Your task to perform on an android device: turn off picture-in-picture Image 0: 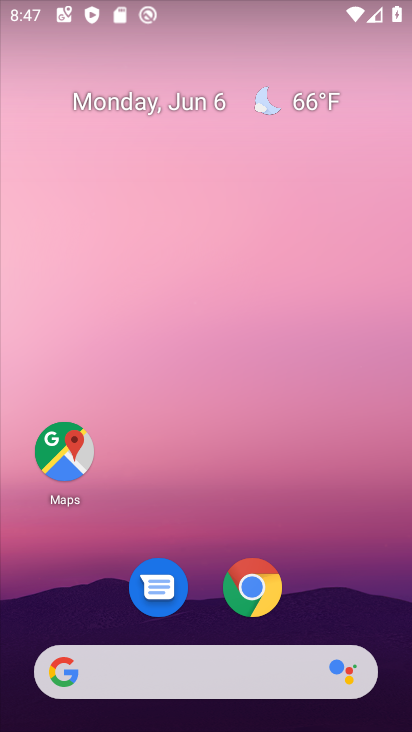
Step 0: click (260, 594)
Your task to perform on an android device: turn off picture-in-picture Image 1: 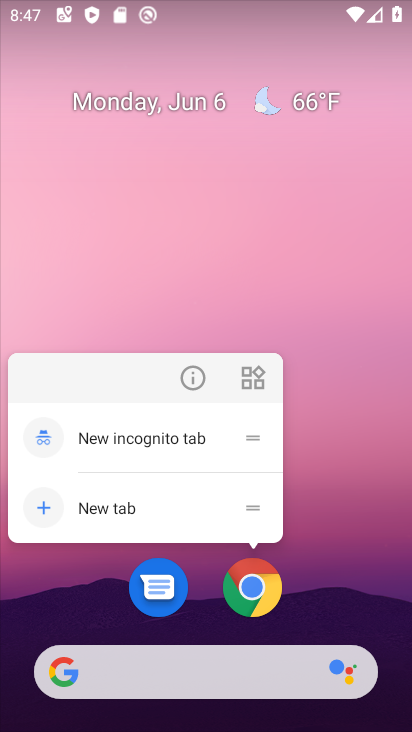
Step 1: click (195, 373)
Your task to perform on an android device: turn off picture-in-picture Image 2: 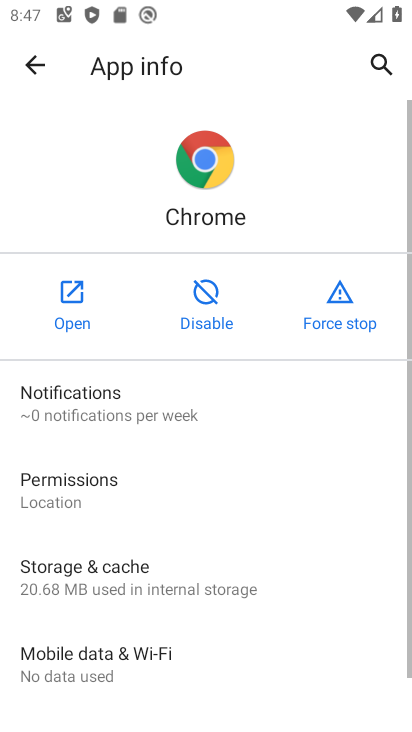
Step 2: drag from (213, 610) to (197, 13)
Your task to perform on an android device: turn off picture-in-picture Image 3: 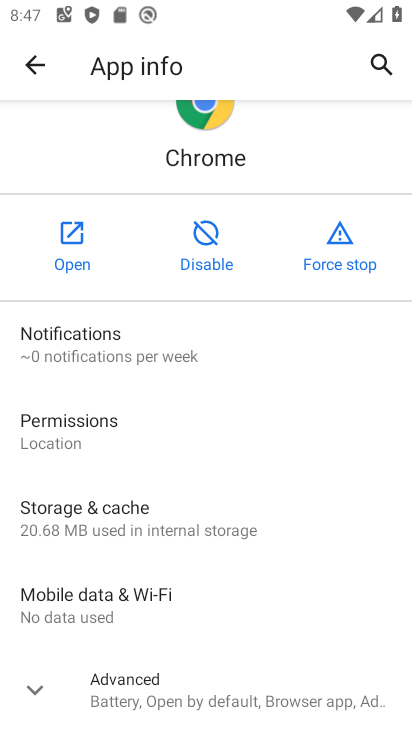
Step 3: click (189, 713)
Your task to perform on an android device: turn off picture-in-picture Image 4: 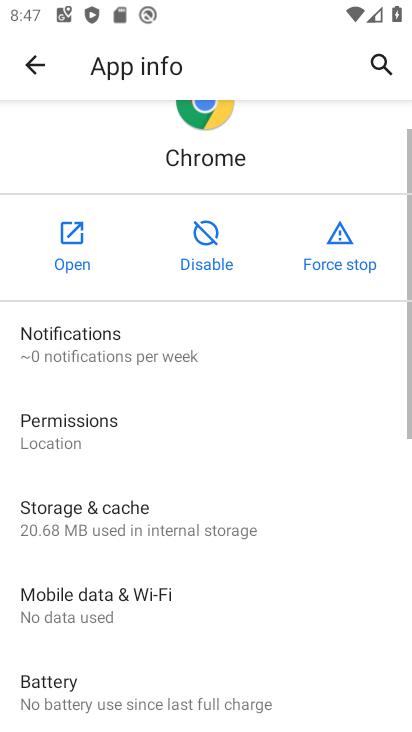
Step 4: drag from (229, 682) to (204, 208)
Your task to perform on an android device: turn off picture-in-picture Image 5: 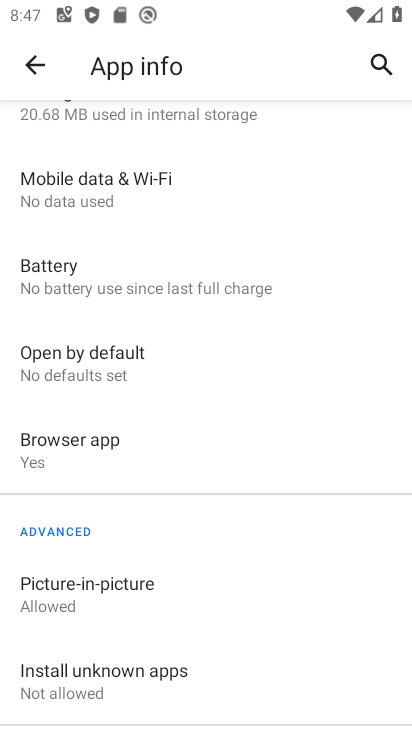
Step 5: click (137, 586)
Your task to perform on an android device: turn off picture-in-picture Image 6: 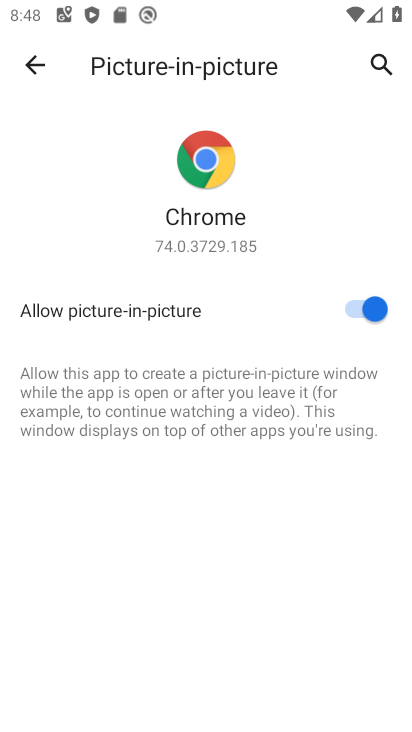
Step 6: click (360, 304)
Your task to perform on an android device: turn off picture-in-picture Image 7: 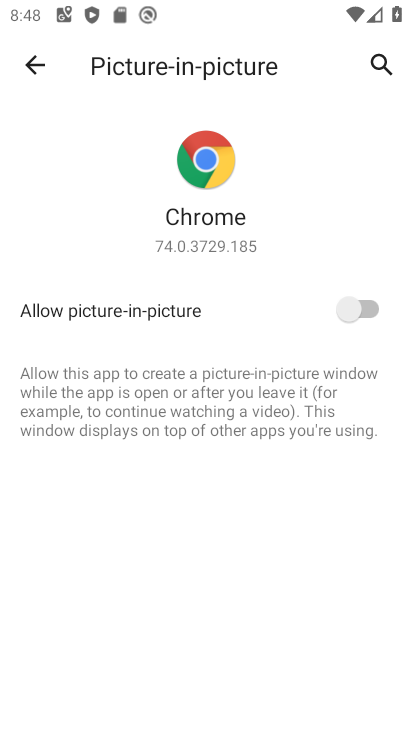
Step 7: task complete